Your task to perform on an android device: toggle translation in the chrome app Image 0: 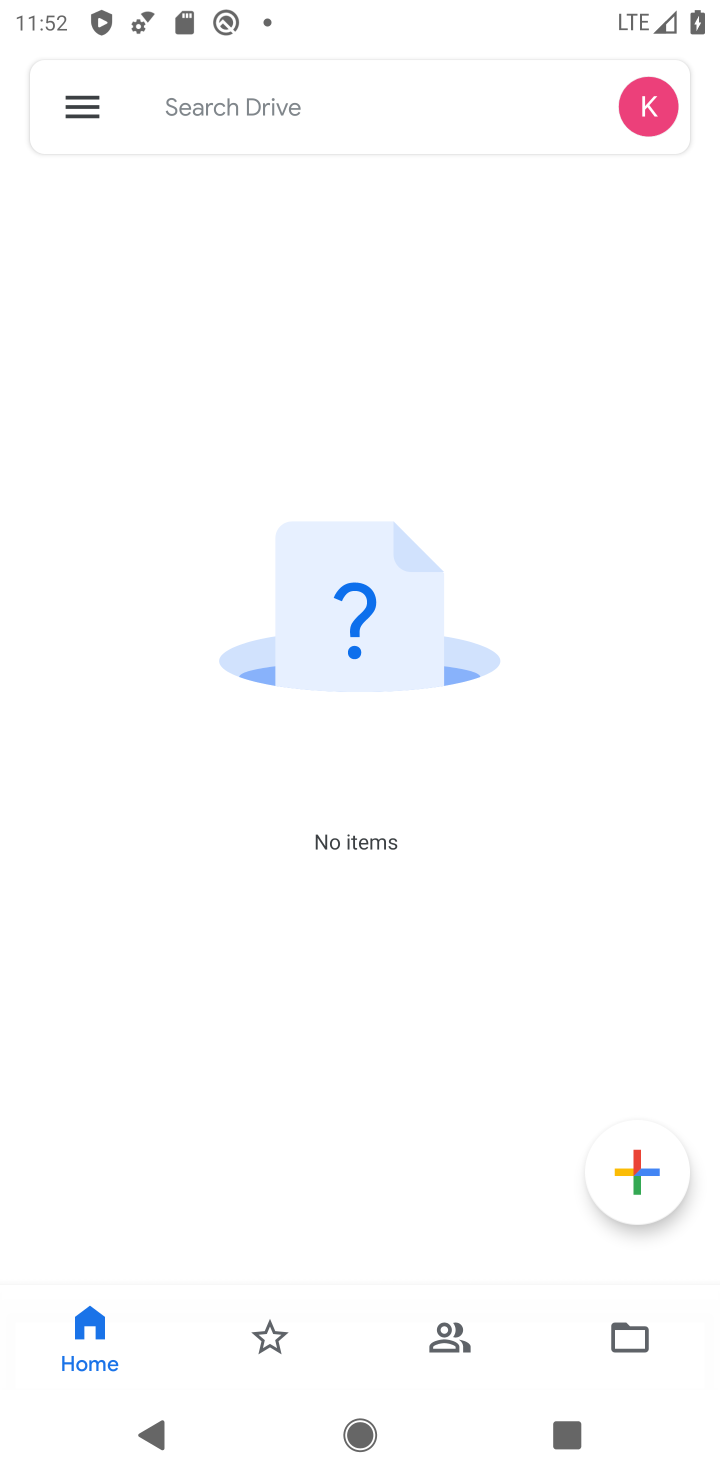
Step 0: press home button
Your task to perform on an android device: toggle translation in the chrome app Image 1: 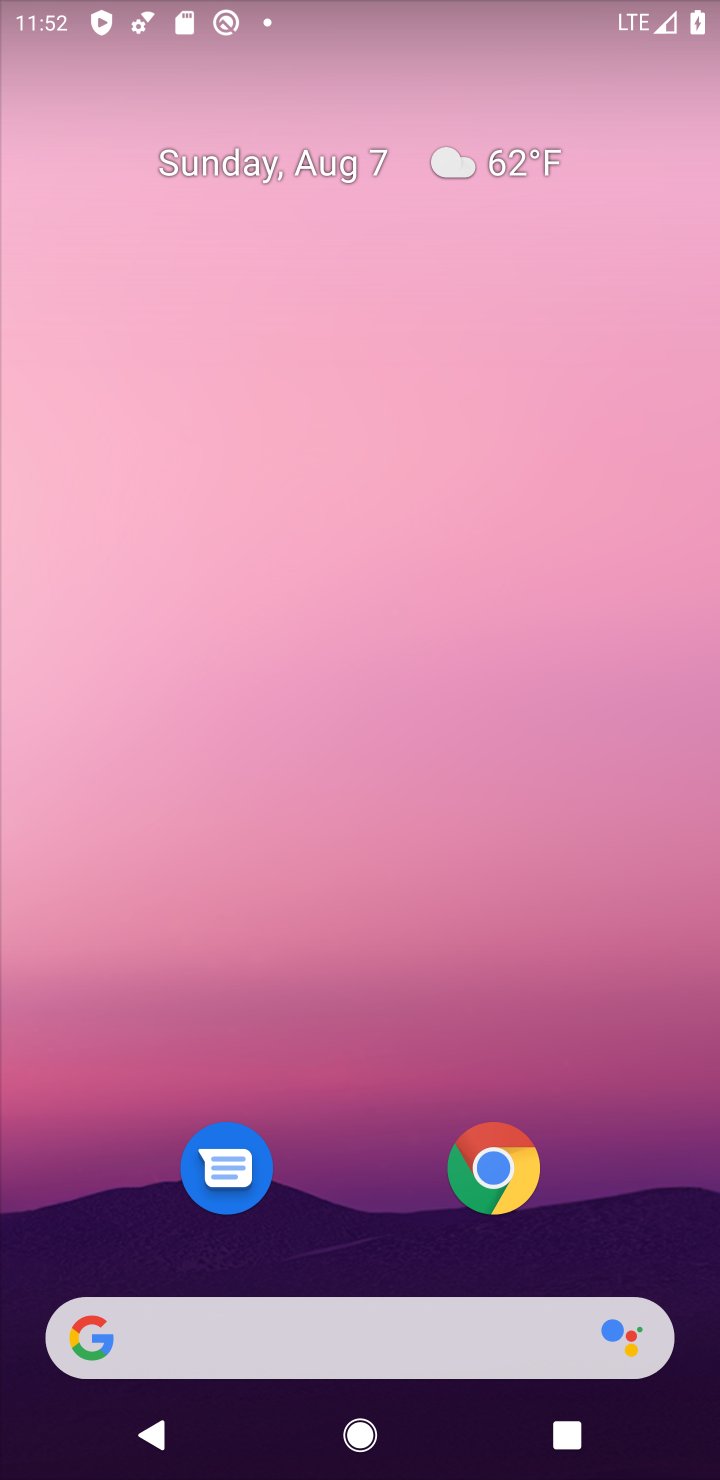
Step 1: click (501, 1182)
Your task to perform on an android device: toggle translation in the chrome app Image 2: 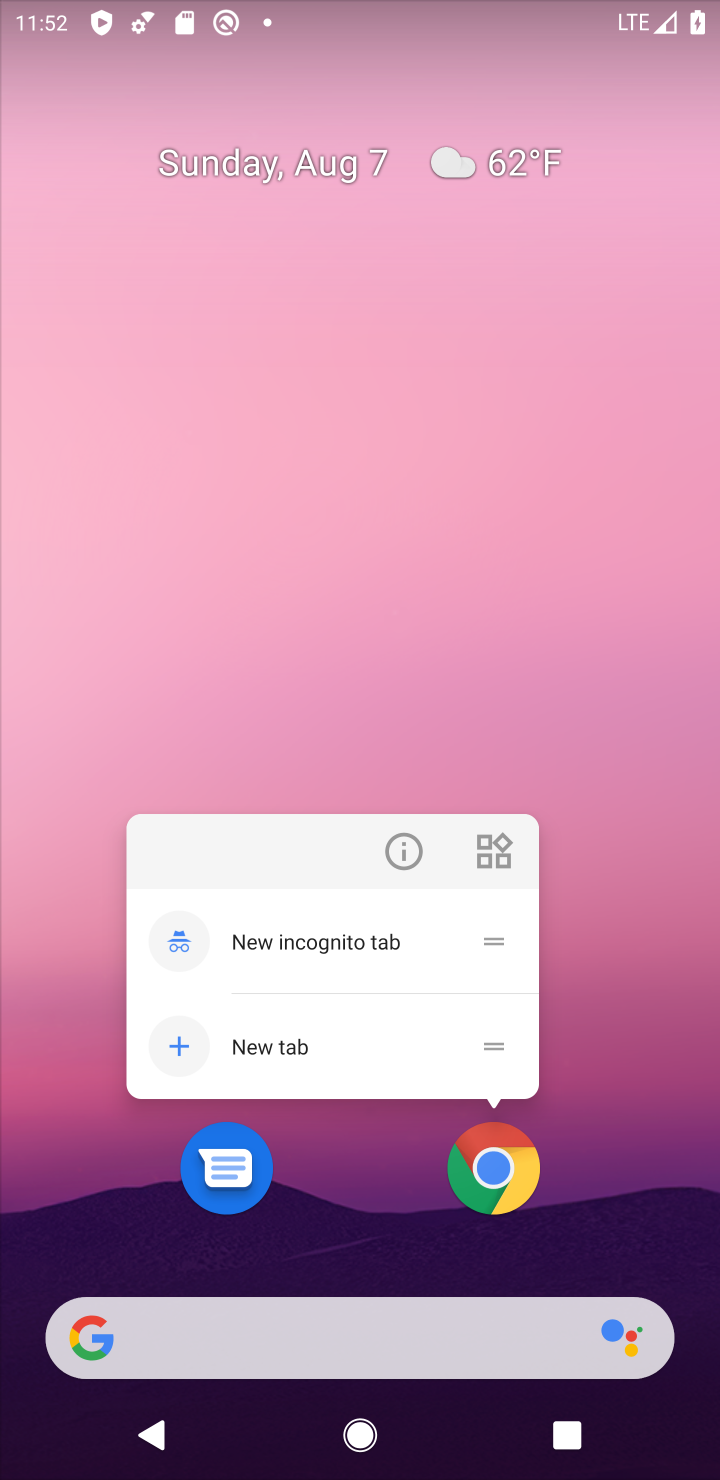
Step 2: click (501, 1182)
Your task to perform on an android device: toggle translation in the chrome app Image 3: 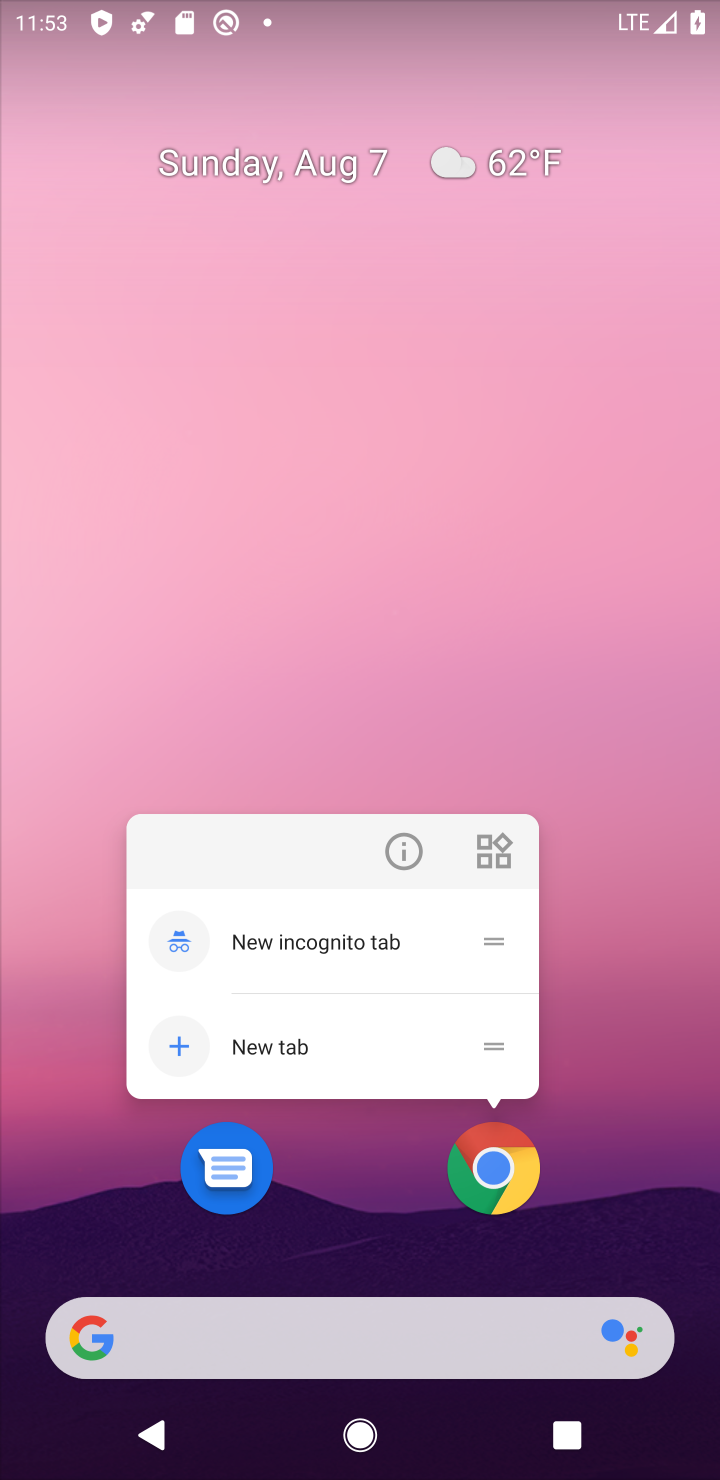
Step 3: drag from (621, 1232) to (567, 465)
Your task to perform on an android device: toggle translation in the chrome app Image 4: 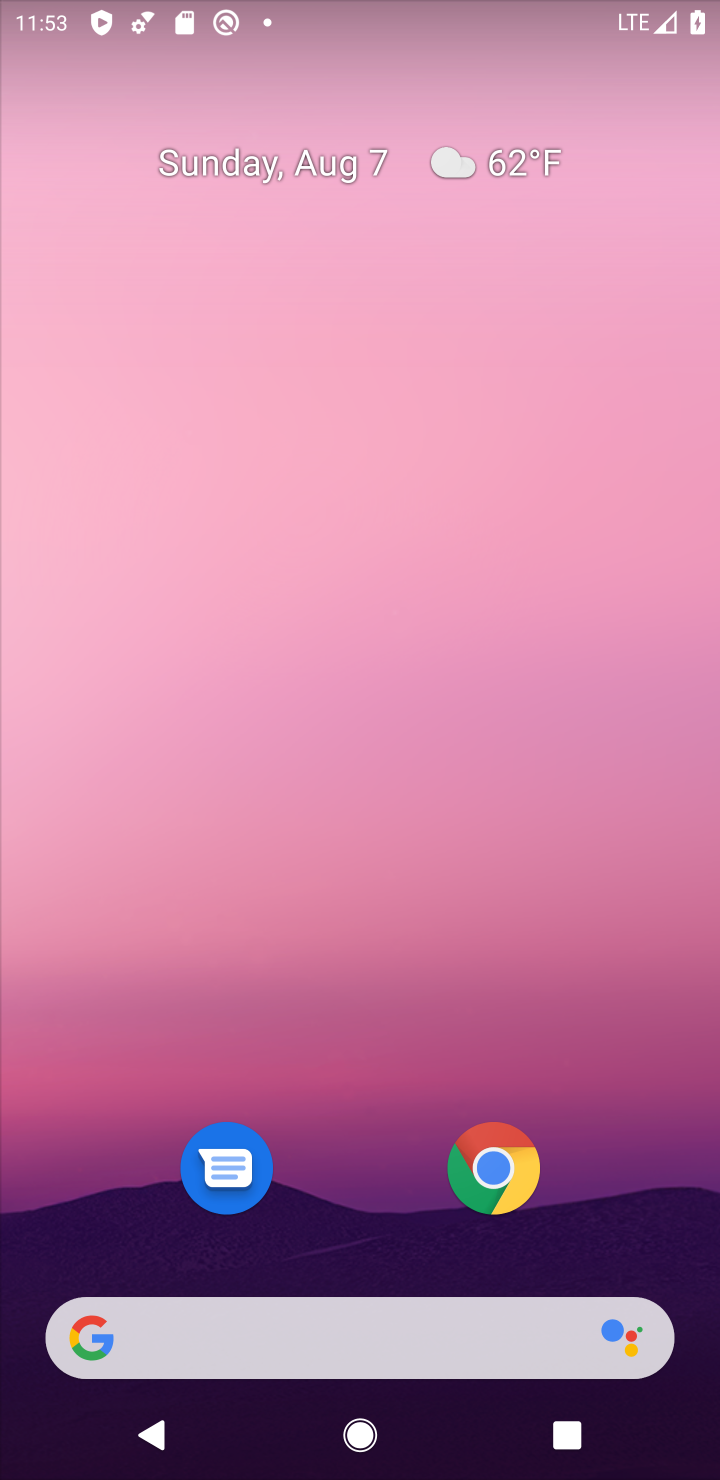
Step 4: drag from (374, 1249) to (349, 0)
Your task to perform on an android device: toggle translation in the chrome app Image 5: 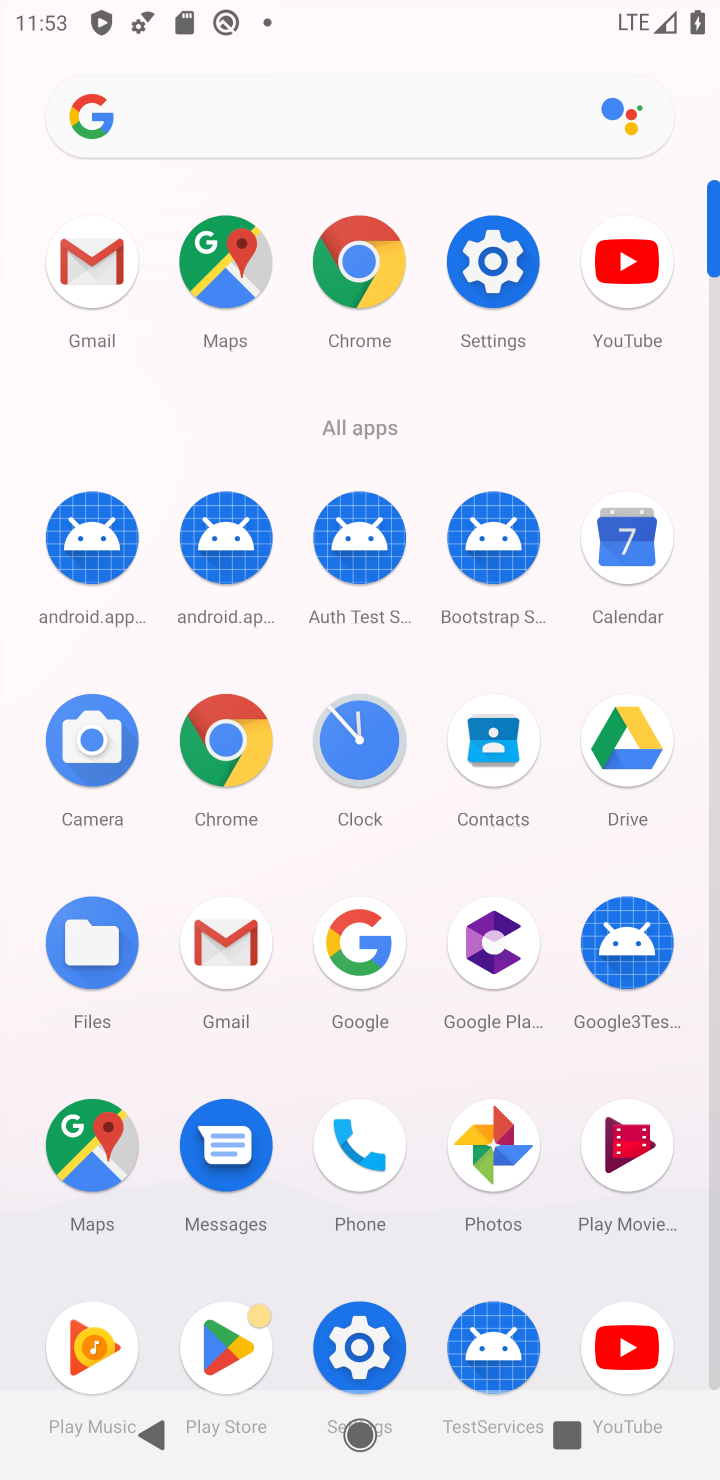
Step 5: click (378, 266)
Your task to perform on an android device: toggle translation in the chrome app Image 6: 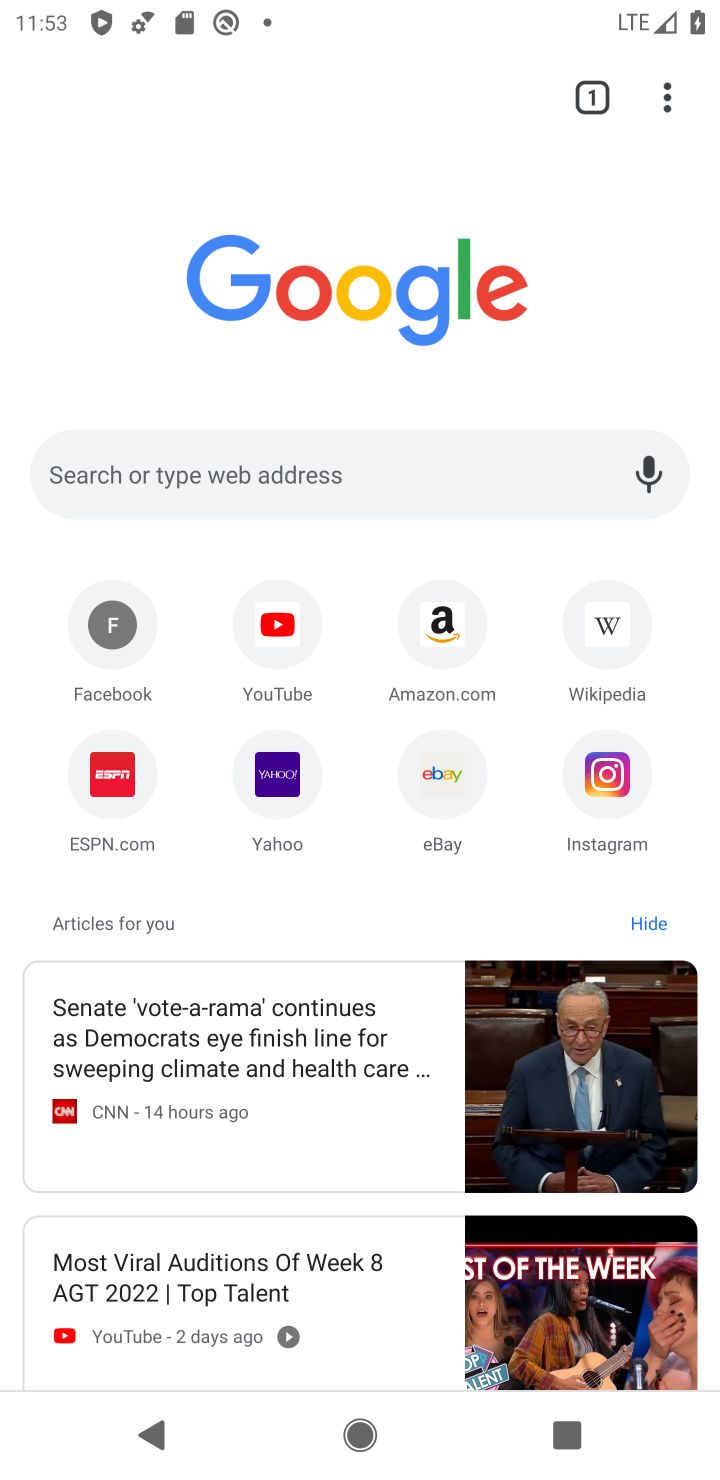
Step 6: drag from (669, 91) to (321, 920)
Your task to perform on an android device: toggle translation in the chrome app Image 7: 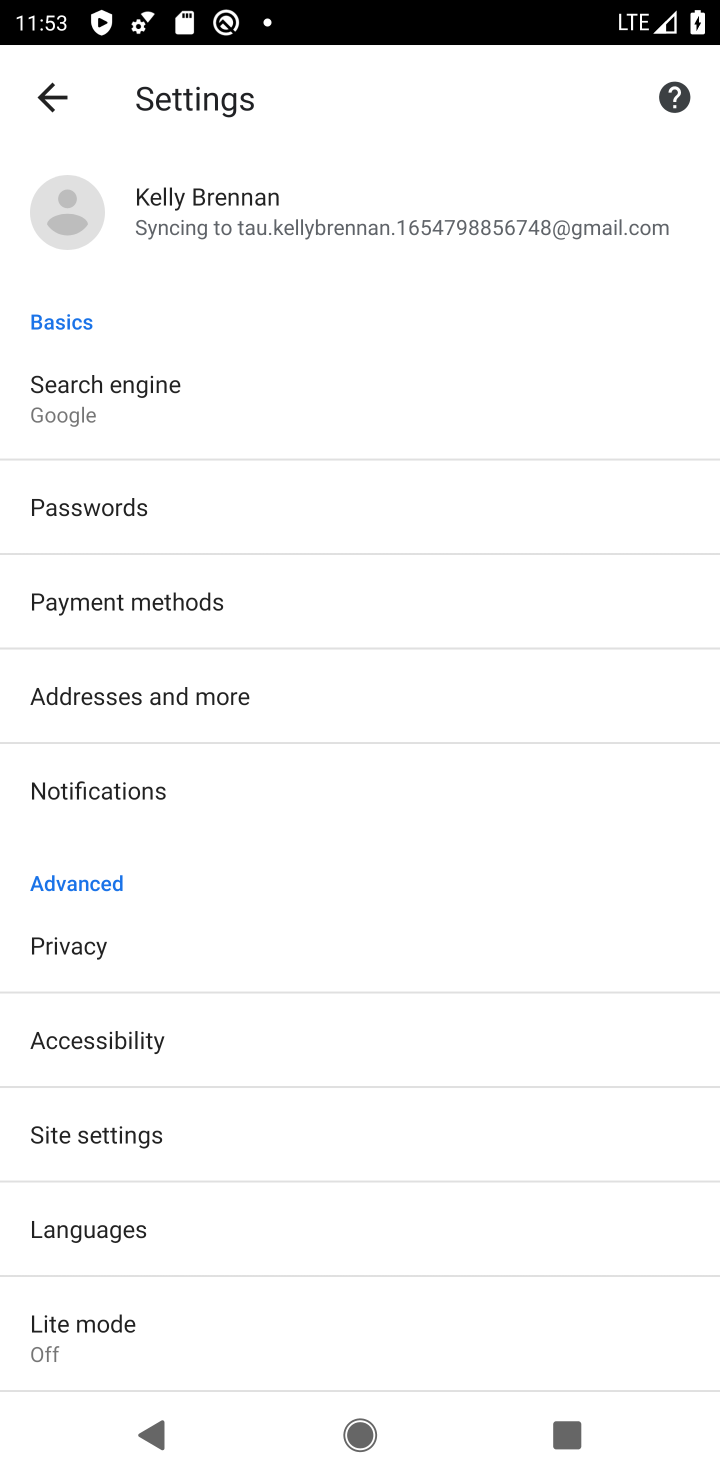
Step 7: click (111, 1230)
Your task to perform on an android device: toggle translation in the chrome app Image 8: 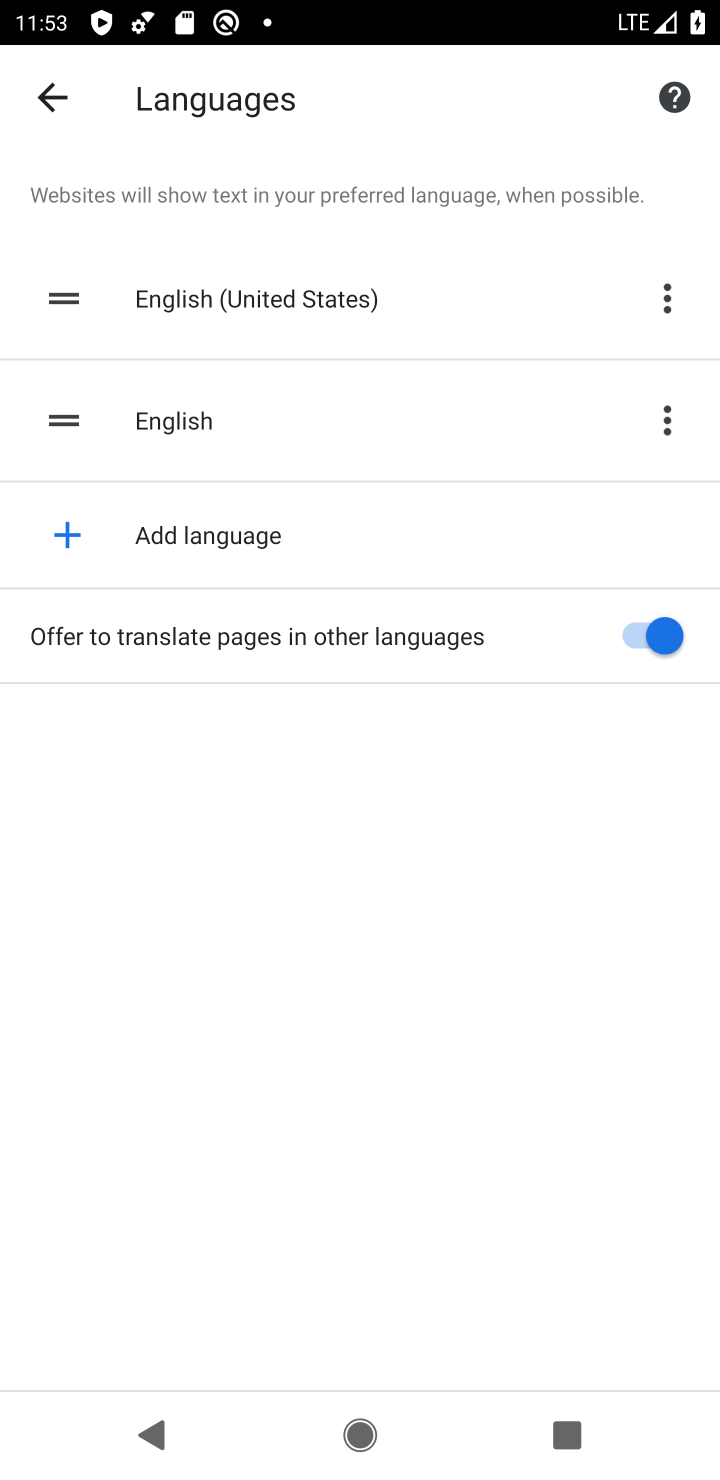
Step 8: click (666, 645)
Your task to perform on an android device: toggle translation in the chrome app Image 9: 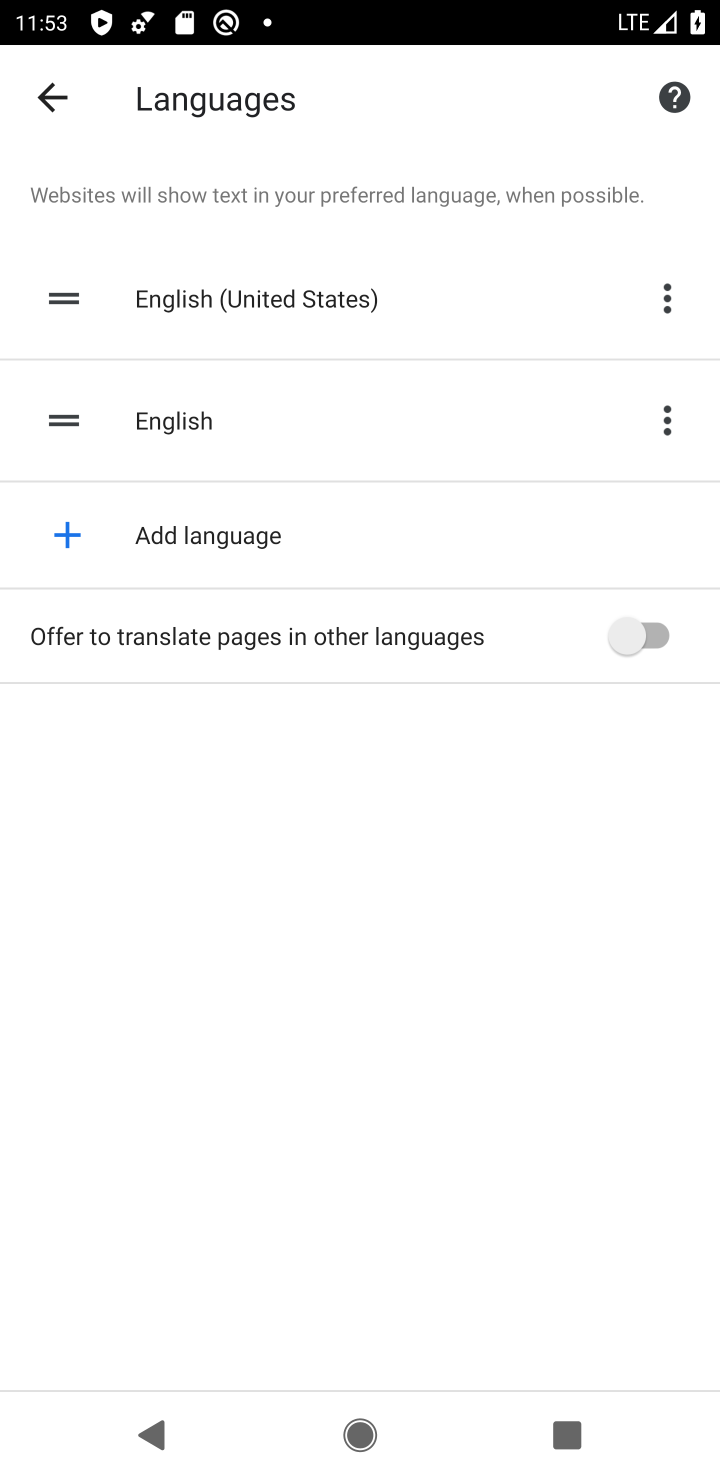
Step 9: task complete